Your task to perform on an android device: Open the map Image 0: 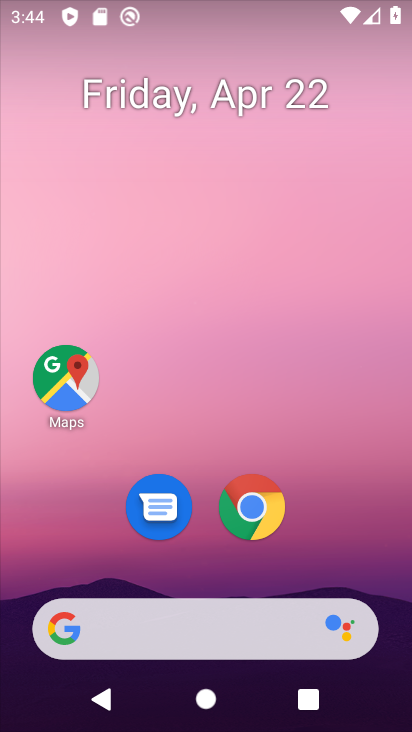
Step 0: click (70, 384)
Your task to perform on an android device: Open the map Image 1: 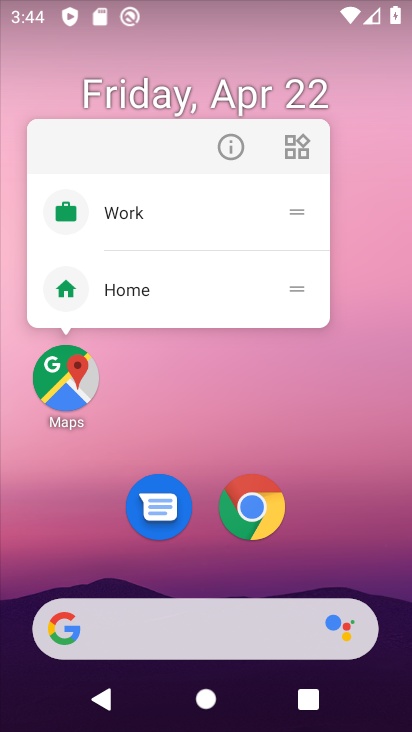
Step 1: click (64, 367)
Your task to perform on an android device: Open the map Image 2: 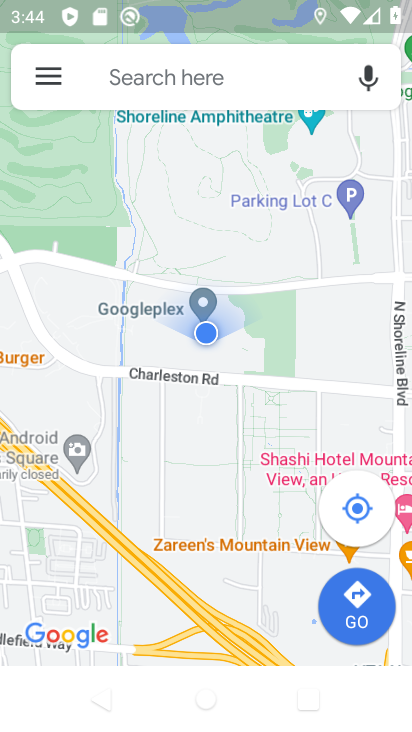
Step 2: task complete